Your task to perform on an android device: empty trash in the gmail app Image 0: 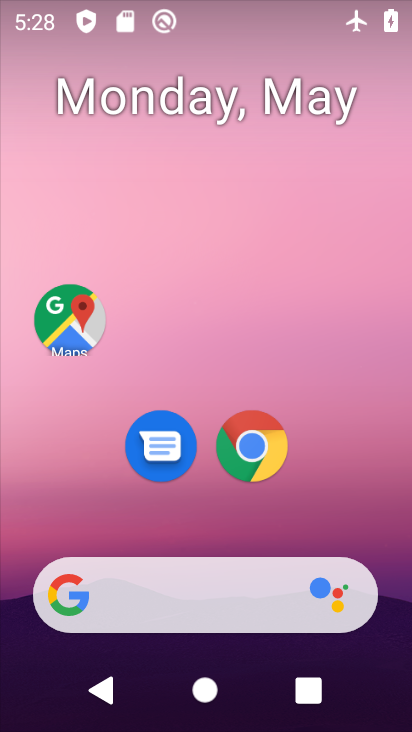
Step 0: drag from (345, 471) to (169, 28)
Your task to perform on an android device: empty trash in the gmail app Image 1: 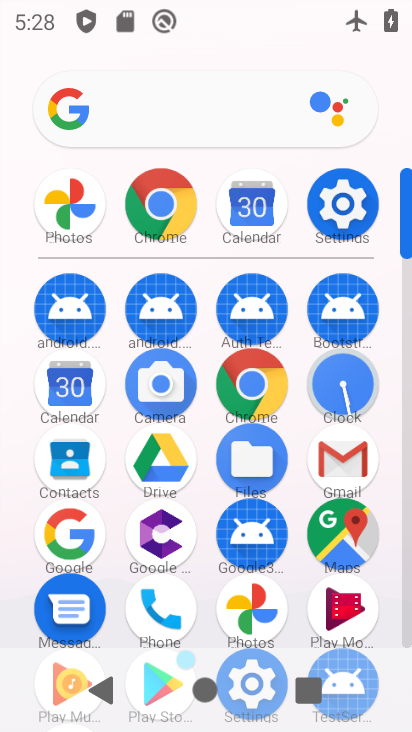
Step 1: click (337, 453)
Your task to perform on an android device: empty trash in the gmail app Image 2: 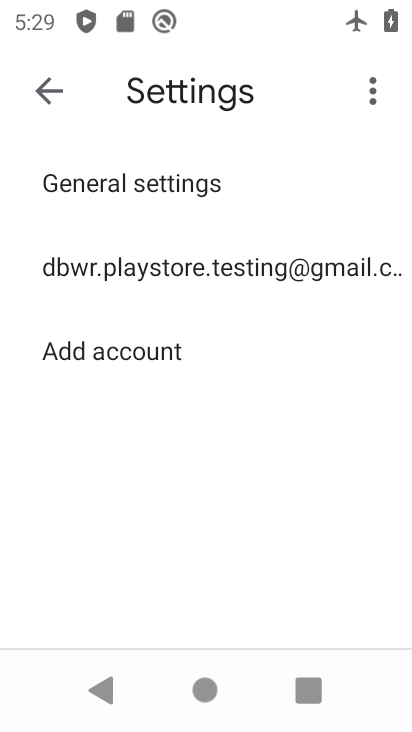
Step 2: press home button
Your task to perform on an android device: empty trash in the gmail app Image 3: 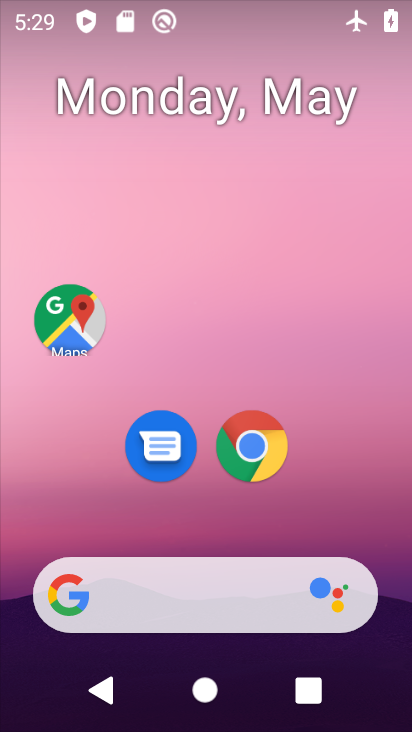
Step 3: drag from (333, 548) to (210, 96)
Your task to perform on an android device: empty trash in the gmail app Image 4: 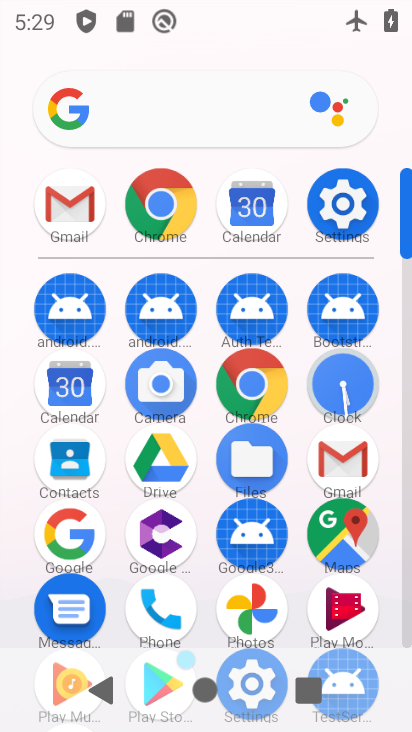
Step 4: click (74, 211)
Your task to perform on an android device: empty trash in the gmail app Image 5: 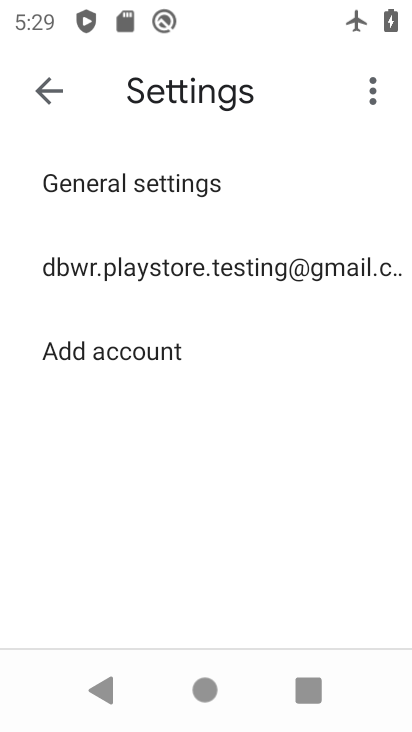
Step 5: click (44, 86)
Your task to perform on an android device: empty trash in the gmail app Image 6: 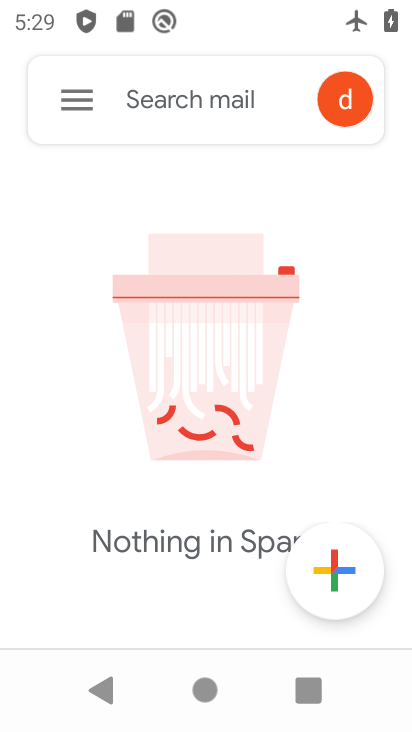
Step 6: click (71, 97)
Your task to perform on an android device: empty trash in the gmail app Image 7: 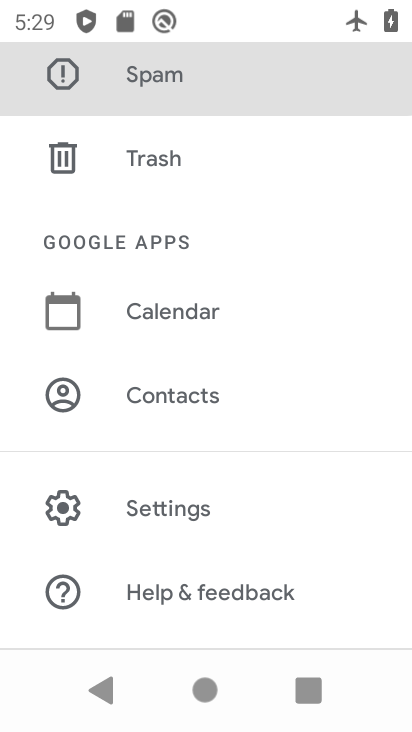
Step 7: click (149, 154)
Your task to perform on an android device: empty trash in the gmail app Image 8: 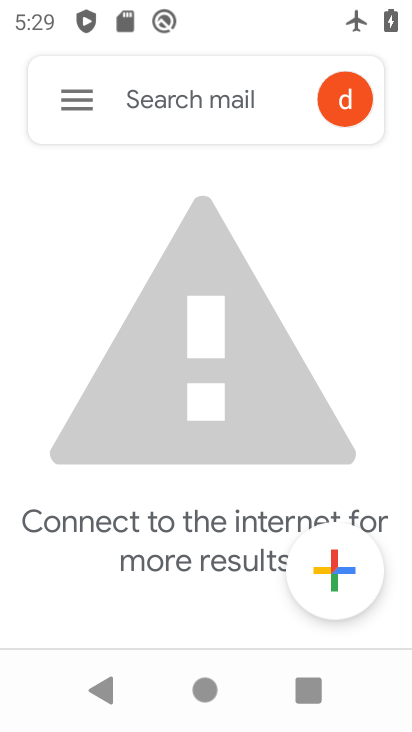
Step 8: click (70, 117)
Your task to perform on an android device: empty trash in the gmail app Image 9: 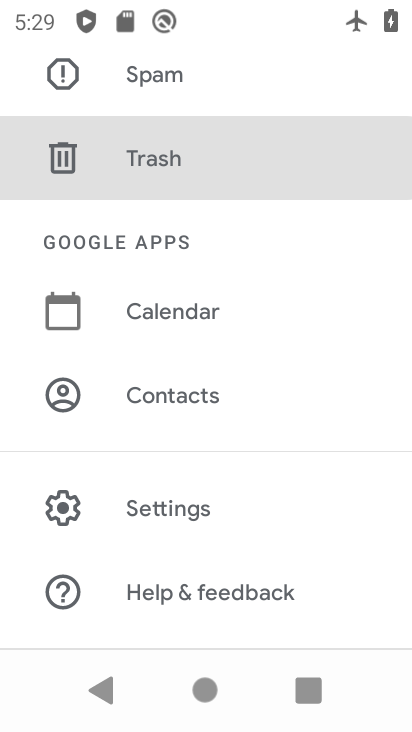
Step 9: click (144, 158)
Your task to perform on an android device: empty trash in the gmail app Image 10: 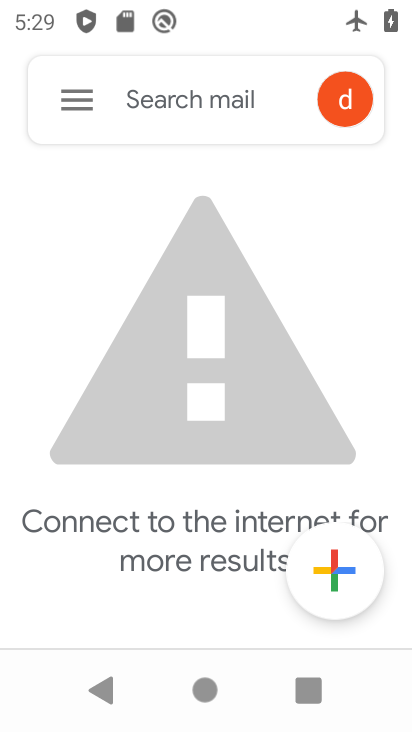
Step 10: task complete